Your task to perform on an android device: open a bookmark in the chrome app Image 0: 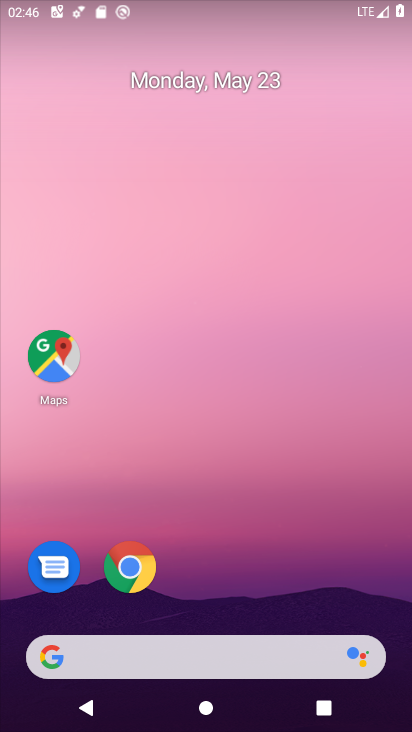
Step 0: drag from (254, 614) to (286, 263)
Your task to perform on an android device: open a bookmark in the chrome app Image 1: 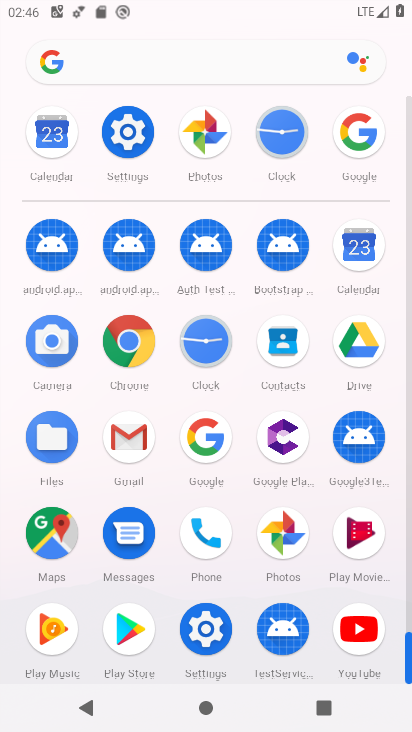
Step 1: click (144, 344)
Your task to perform on an android device: open a bookmark in the chrome app Image 2: 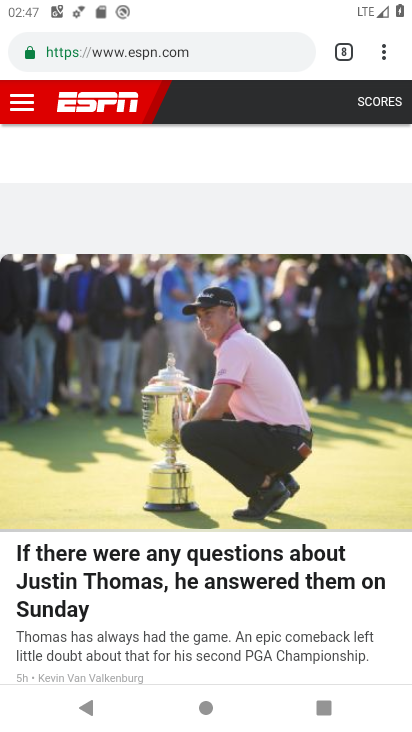
Step 2: task complete